Your task to perform on an android device: find snoozed emails in the gmail app Image 0: 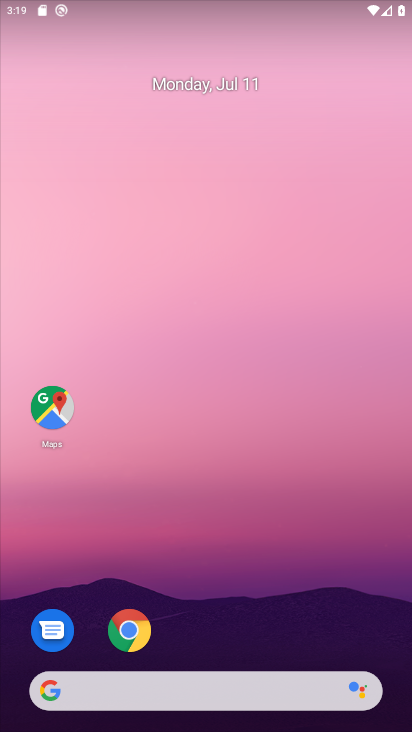
Step 0: drag from (272, 643) to (190, 9)
Your task to perform on an android device: find snoozed emails in the gmail app Image 1: 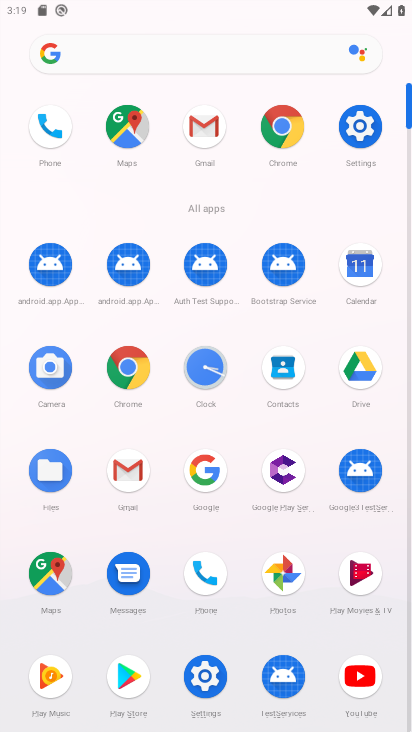
Step 1: click (198, 136)
Your task to perform on an android device: find snoozed emails in the gmail app Image 2: 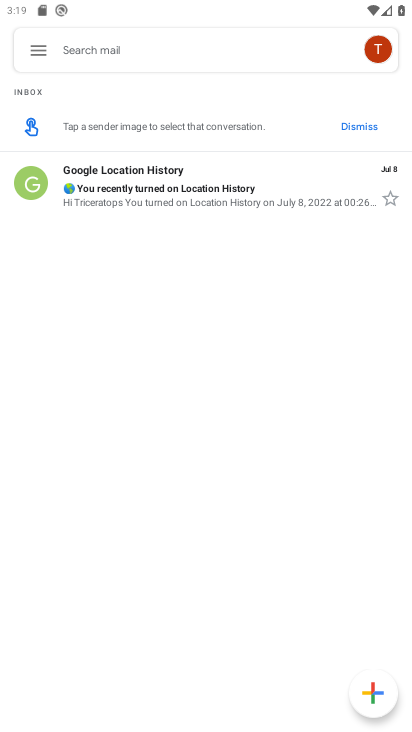
Step 2: click (31, 67)
Your task to perform on an android device: find snoozed emails in the gmail app Image 3: 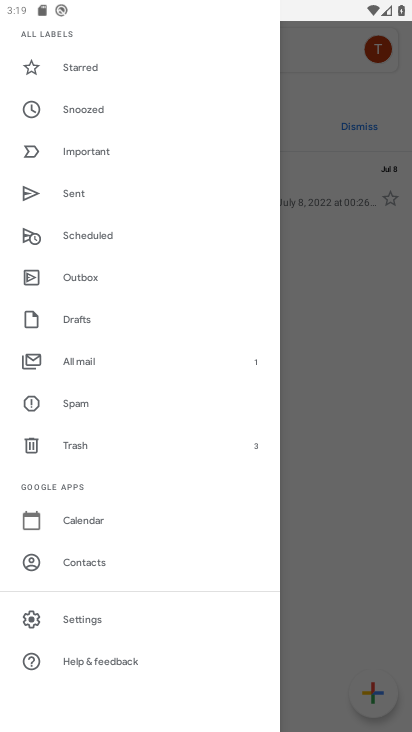
Step 3: click (49, 116)
Your task to perform on an android device: find snoozed emails in the gmail app Image 4: 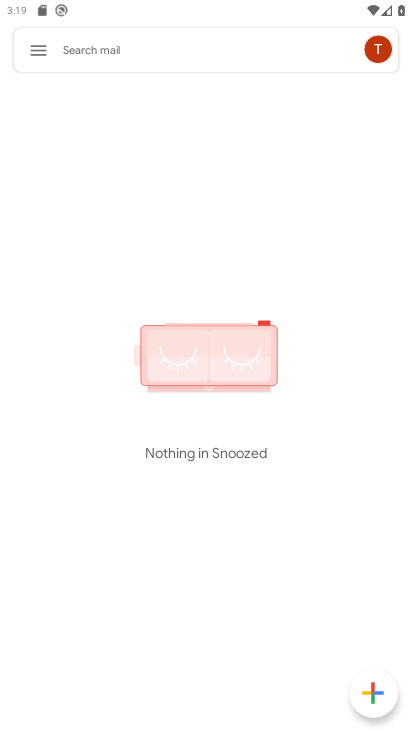
Step 4: task complete